Your task to perform on an android device: toggle sleep mode Image 0: 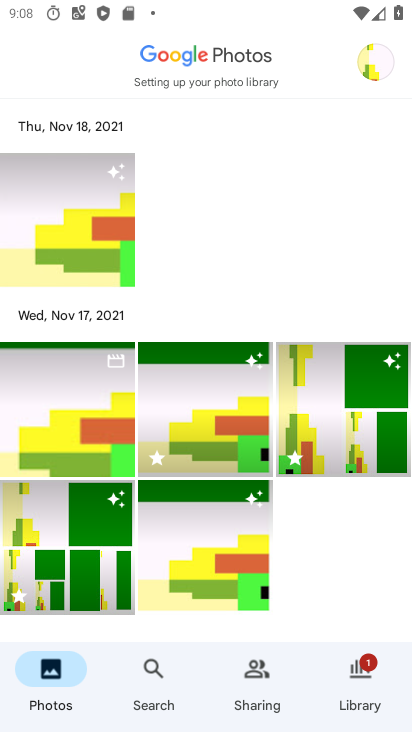
Step 0: press home button
Your task to perform on an android device: toggle sleep mode Image 1: 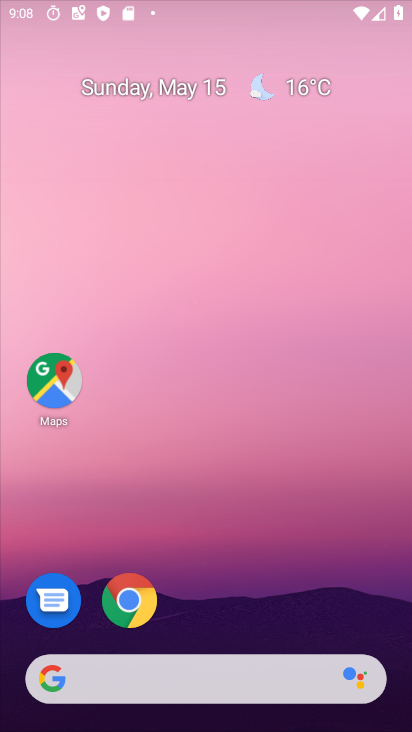
Step 1: drag from (235, 603) to (292, 78)
Your task to perform on an android device: toggle sleep mode Image 2: 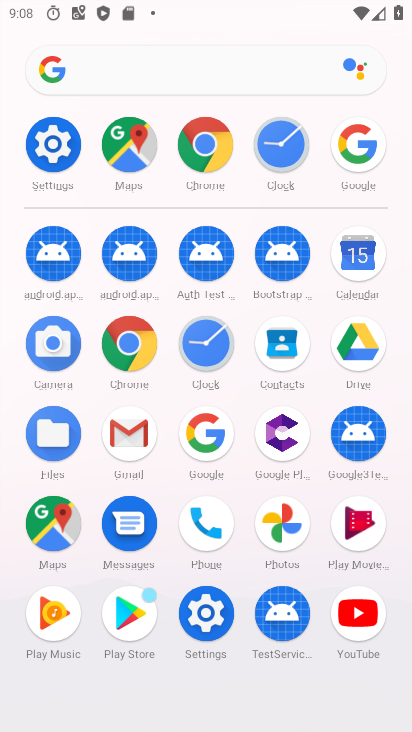
Step 2: click (50, 139)
Your task to perform on an android device: toggle sleep mode Image 3: 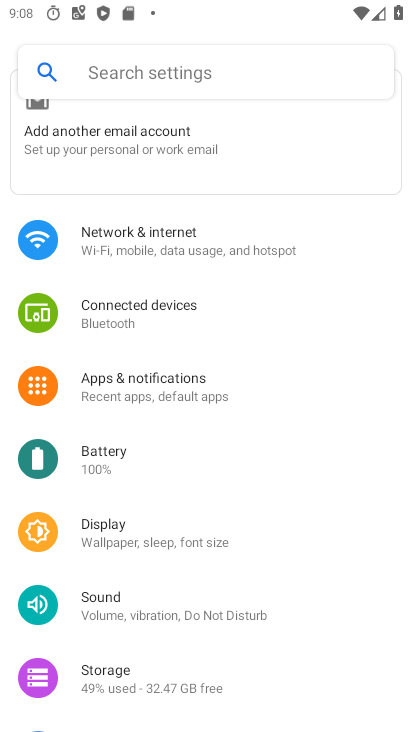
Step 3: click (189, 543)
Your task to perform on an android device: toggle sleep mode Image 4: 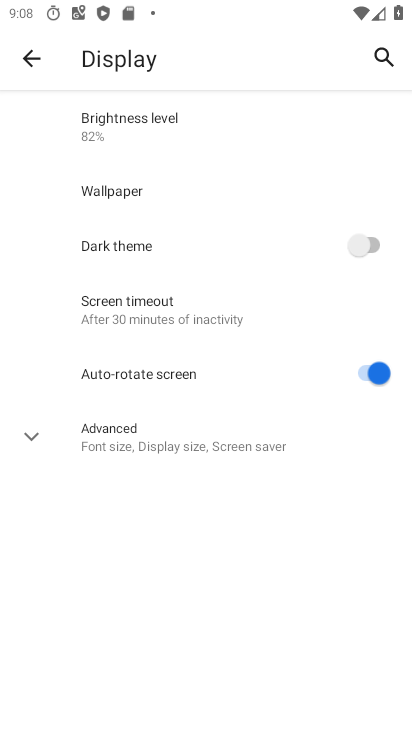
Step 4: click (176, 302)
Your task to perform on an android device: toggle sleep mode Image 5: 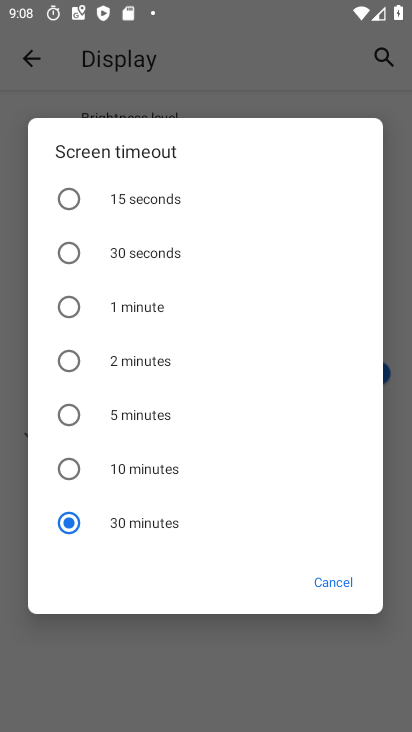
Step 5: click (66, 310)
Your task to perform on an android device: toggle sleep mode Image 6: 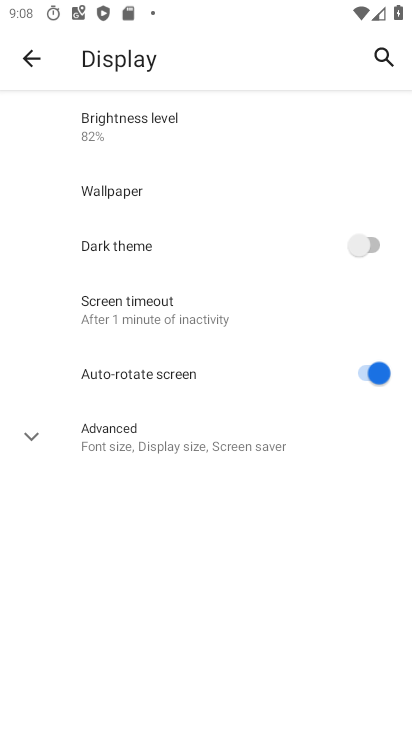
Step 6: task complete